Your task to perform on an android device: toggle wifi Image 0: 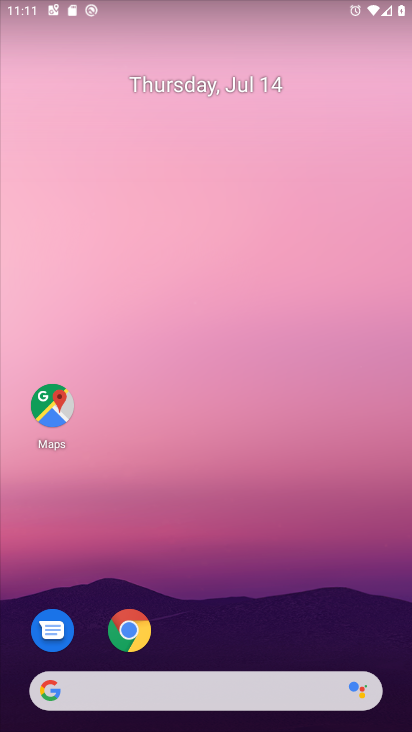
Step 0: drag from (216, 606) to (263, 152)
Your task to perform on an android device: toggle wifi Image 1: 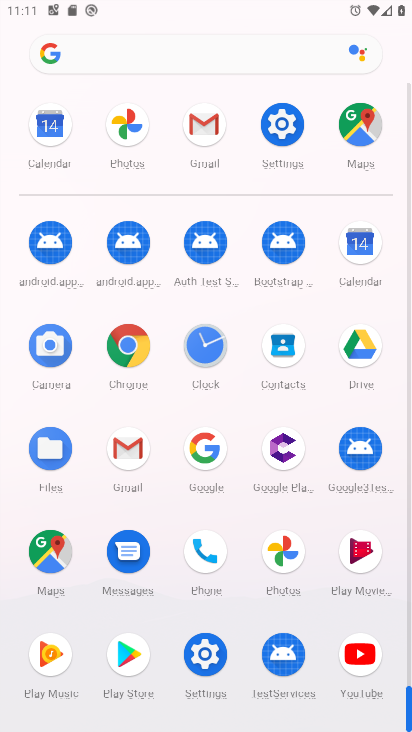
Step 1: click (283, 124)
Your task to perform on an android device: toggle wifi Image 2: 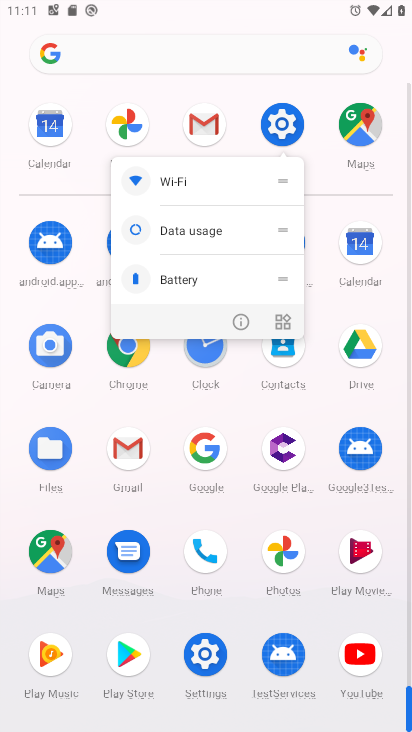
Step 2: click (244, 321)
Your task to perform on an android device: toggle wifi Image 3: 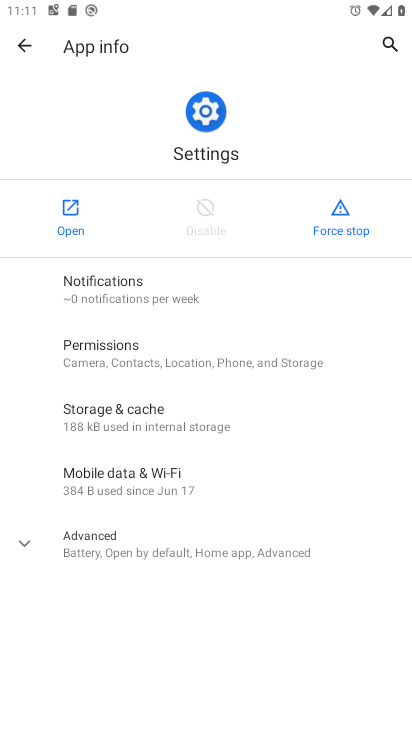
Step 3: click (74, 216)
Your task to perform on an android device: toggle wifi Image 4: 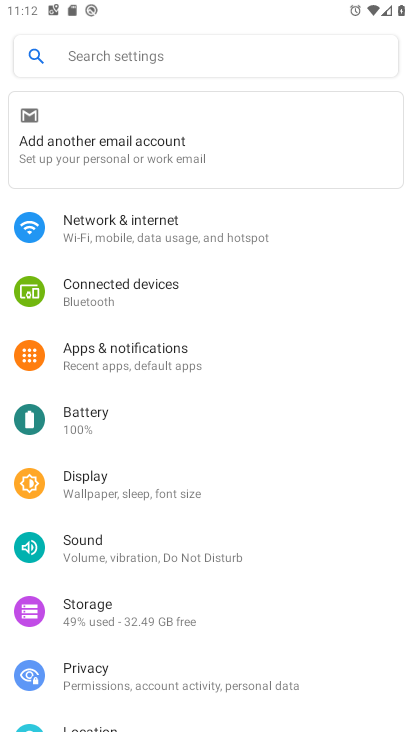
Step 4: click (125, 229)
Your task to perform on an android device: toggle wifi Image 5: 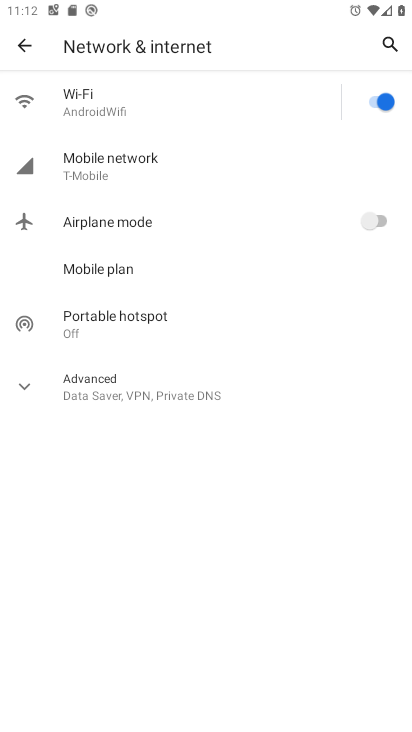
Step 5: click (136, 107)
Your task to perform on an android device: toggle wifi Image 6: 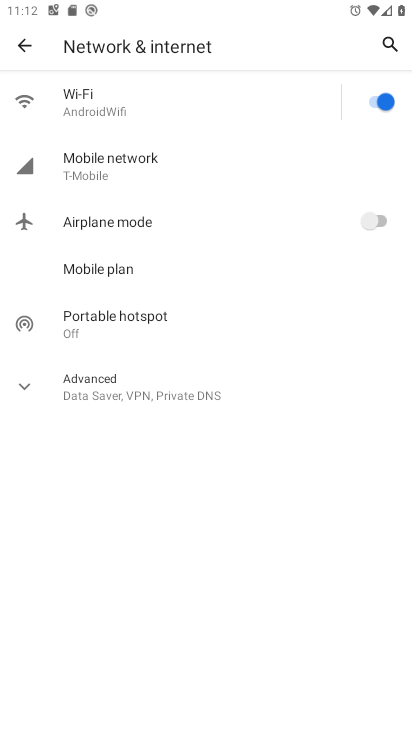
Step 6: click (136, 107)
Your task to perform on an android device: toggle wifi Image 7: 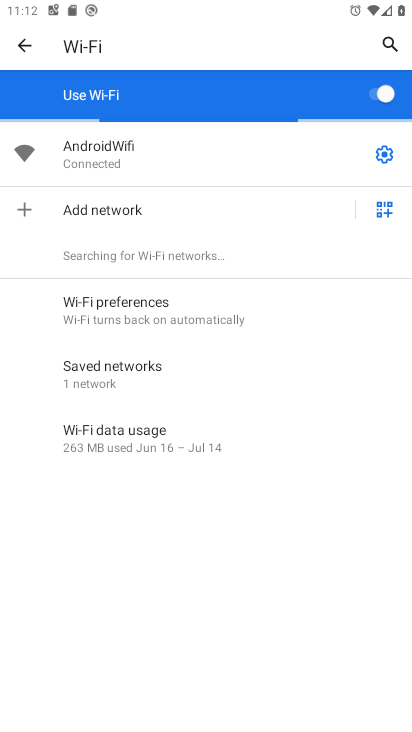
Step 7: click (379, 92)
Your task to perform on an android device: toggle wifi Image 8: 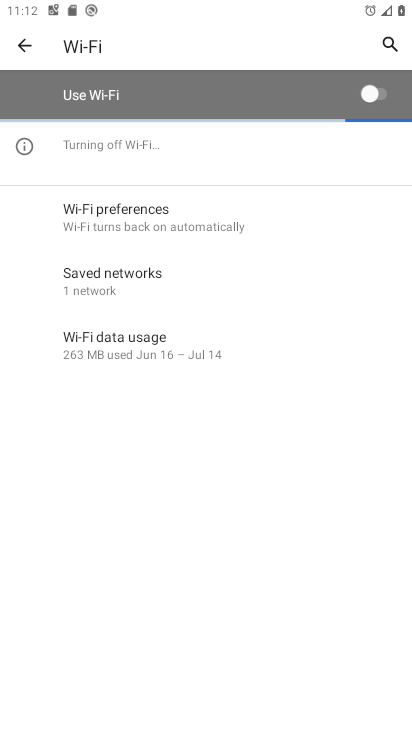
Step 8: task complete